Your task to perform on an android device: turn pop-ups off in chrome Image 0: 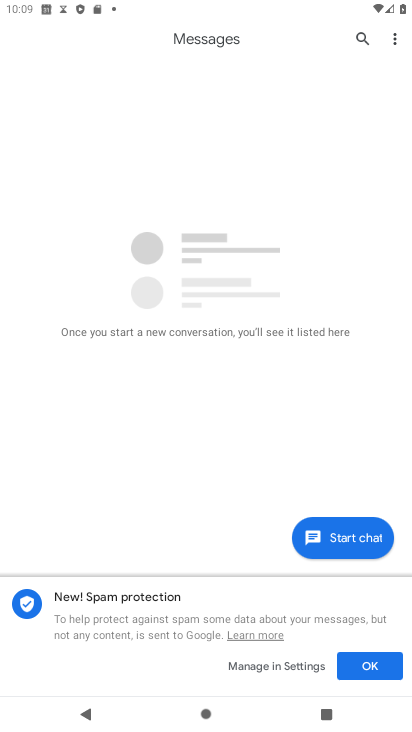
Step 0: press home button
Your task to perform on an android device: turn pop-ups off in chrome Image 1: 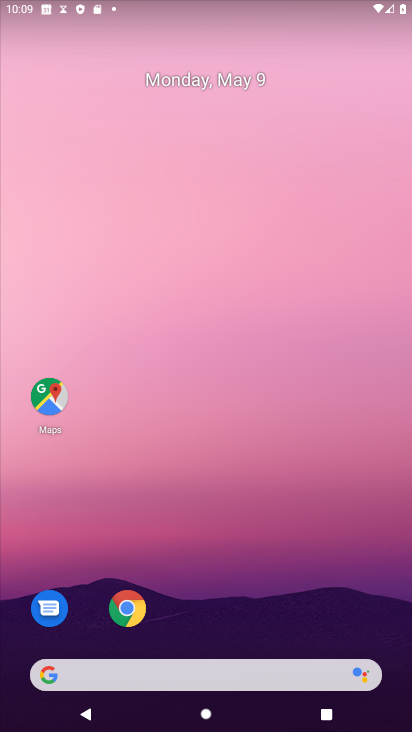
Step 1: click (138, 605)
Your task to perform on an android device: turn pop-ups off in chrome Image 2: 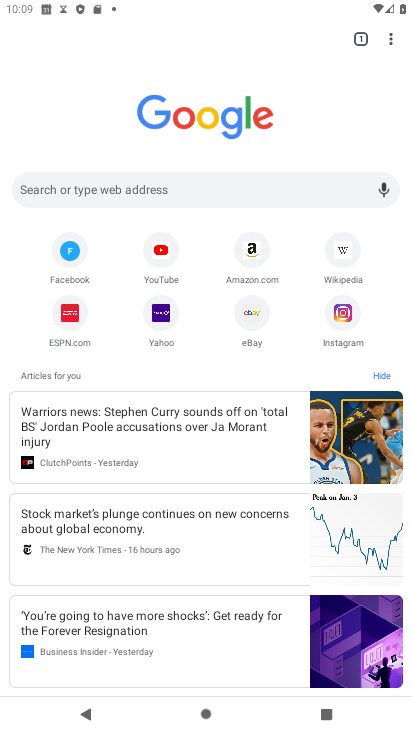
Step 2: click (391, 29)
Your task to perform on an android device: turn pop-ups off in chrome Image 3: 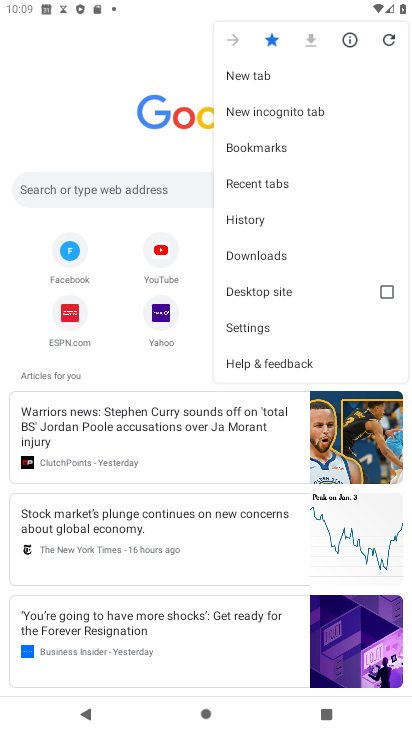
Step 3: click (261, 323)
Your task to perform on an android device: turn pop-ups off in chrome Image 4: 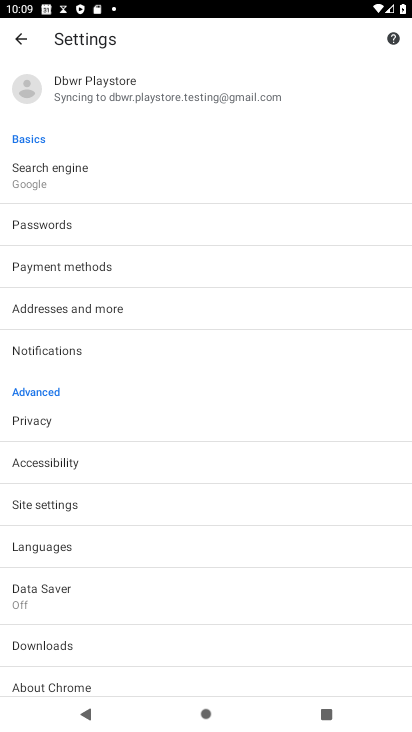
Step 4: click (93, 508)
Your task to perform on an android device: turn pop-ups off in chrome Image 5: 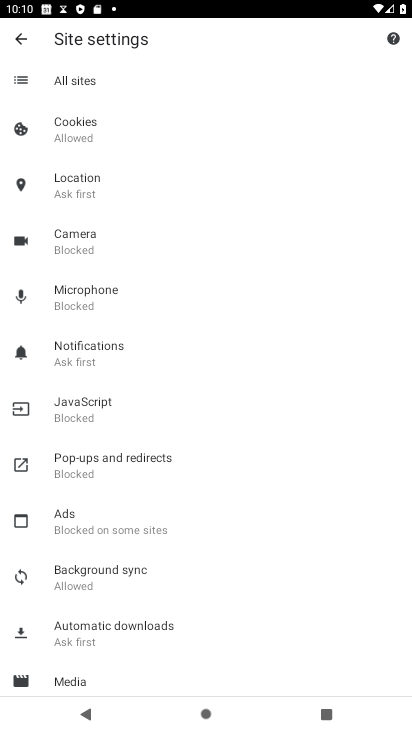
Step 5: click (130, 454)
Your task to perform on an android device: turn pop-ups off in chrome Image 6: 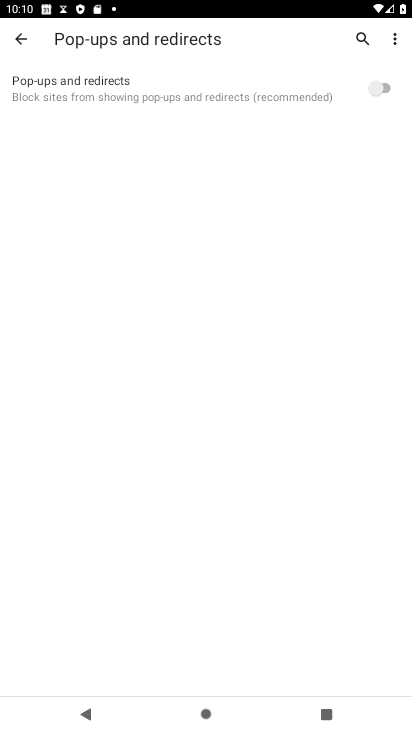
Step 6: task complete